Your task to perform on an android device: Open Yahoo.com Image 0: 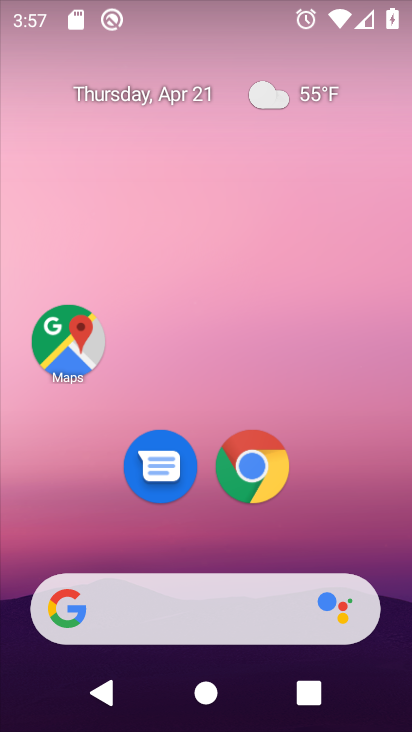
Step 0: click (258, 474)
Your task to perform on an android device: Open Yahoo.com Image 1: 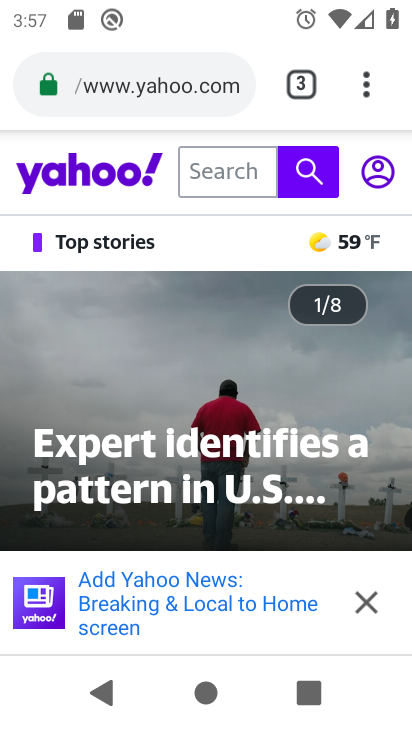
Step 1: task complete